Your task to perform on an android device: remove spam from my inbox in the gmail app Image 0: 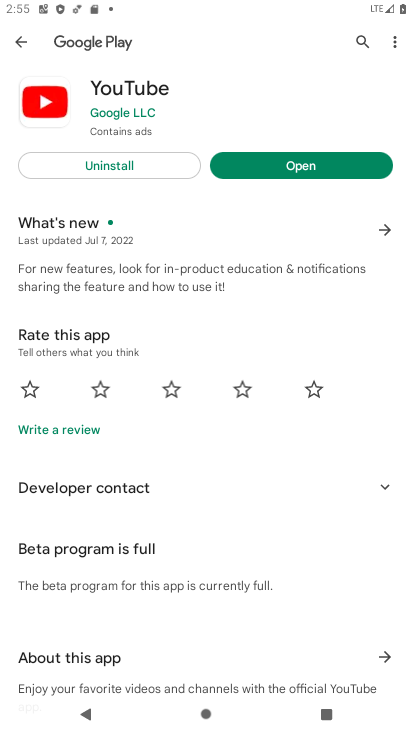
Step 0: press home button
Your task to perform on an android device: remove spam from my inbox in the gmail app Image 1: 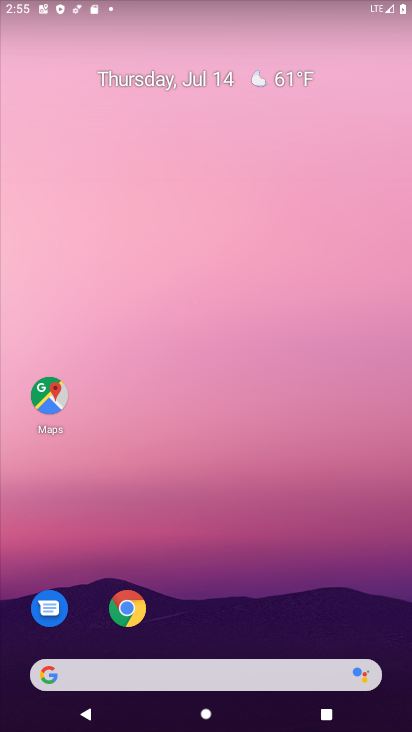
Step 1: drag from (147, 638) to (136, 268)
Your task to perform on an android device: remove spam from my inbox in the gmail app Image 2: 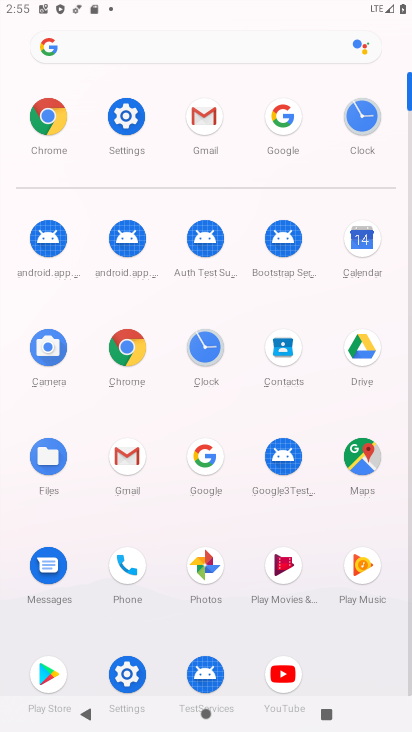
Step 2: click (203, 121)
Your task to perform on an android device: remove spam from my inbox in the gmail app Image 3: 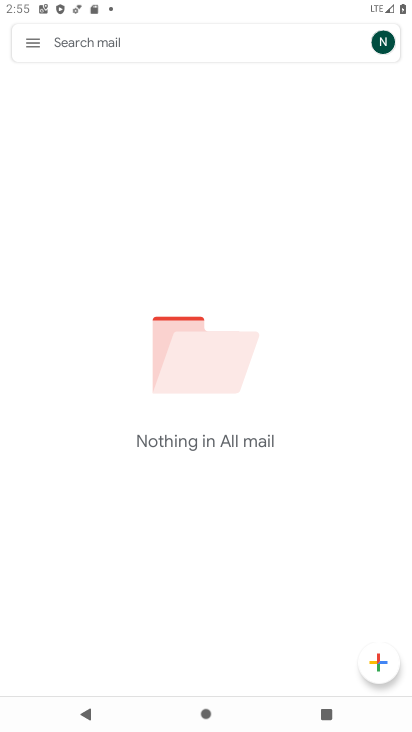
Step 3: click (29, 44)
Your task to perform on an android device: remove spam from my inbox in the gmail app Image 4: 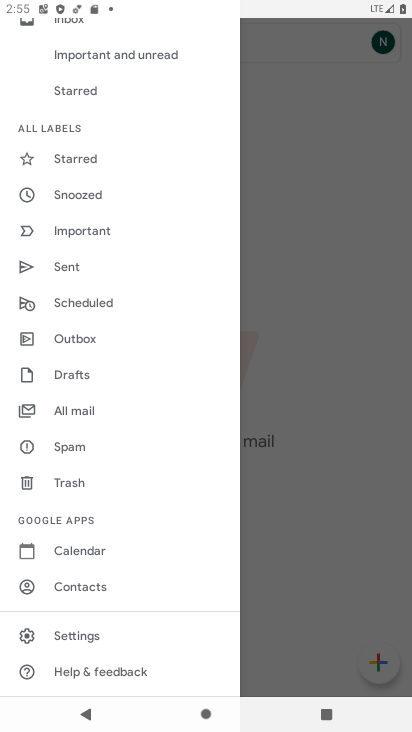
Step 4: click (73, 449)
Your task to perform on an android device: remove spam from my inbox in the gmail app Image 5: 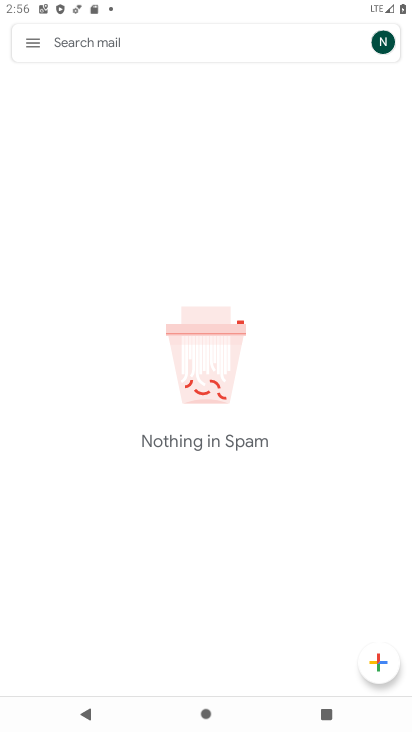
Step 5: click (32, 39)
Your task to perform on an android device: remove spam from my inbox in the gmail app Image 6: 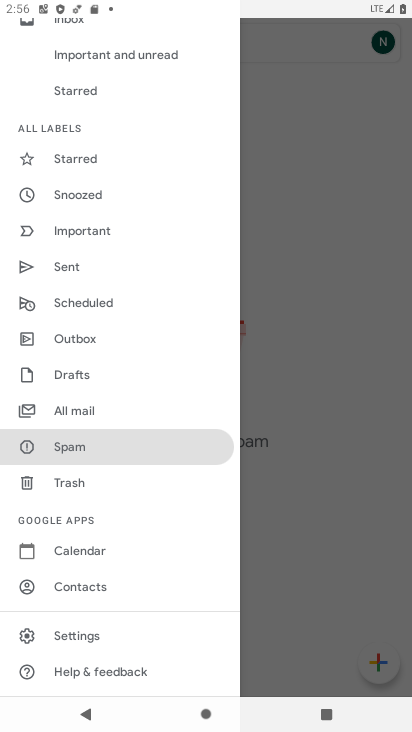
Step 6: click (73, 449)
Your task to perform on an android device: remove spam from my inbox in the gmail app Image 7: 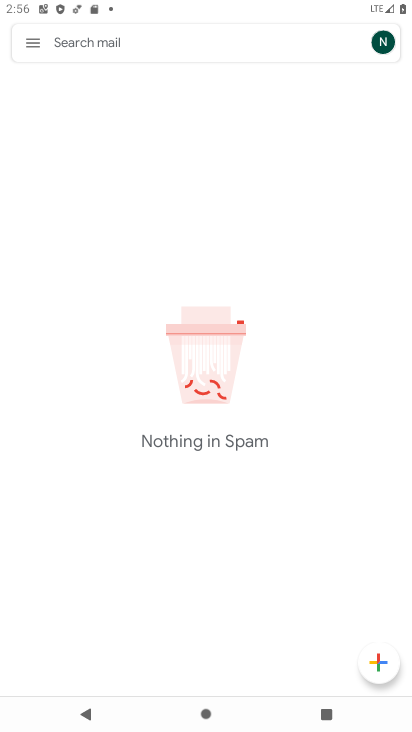
Step 7: task complete